Your task to perform on an android device: check google app version Image 0: 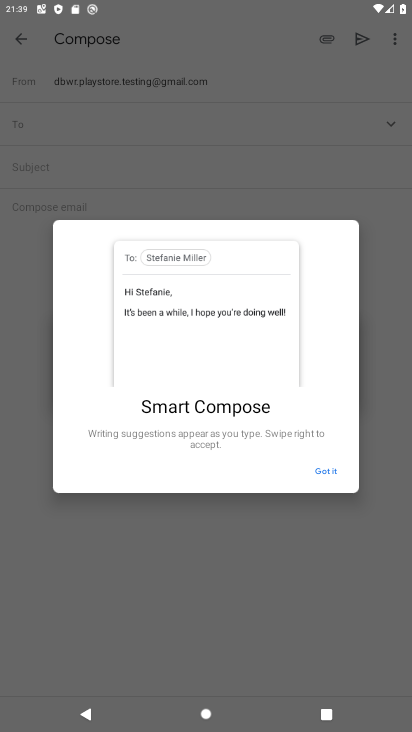
Step 0: press home button
Your task to perform on an android device: check google app version Image 1: 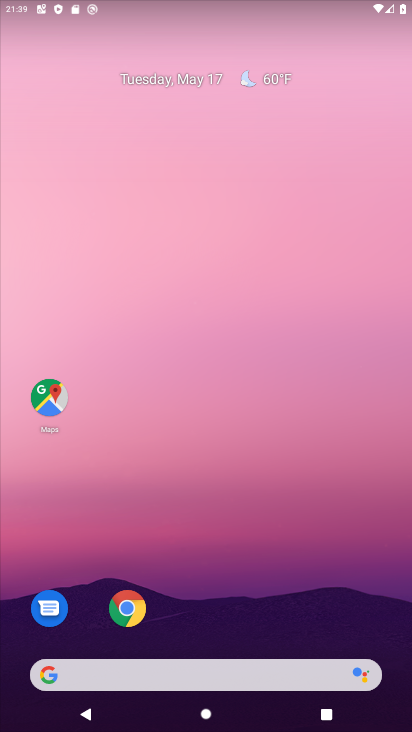
Step 1: drag from (247, 541) to (148, 135)
Your task to perform on an android device: check google app version Image 2: 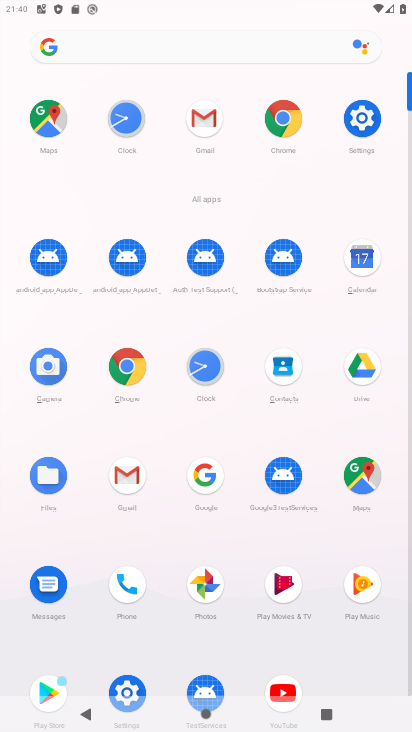
Step 2: click (201, 480)
Your task to perform on an android device: check google app version Image 3: 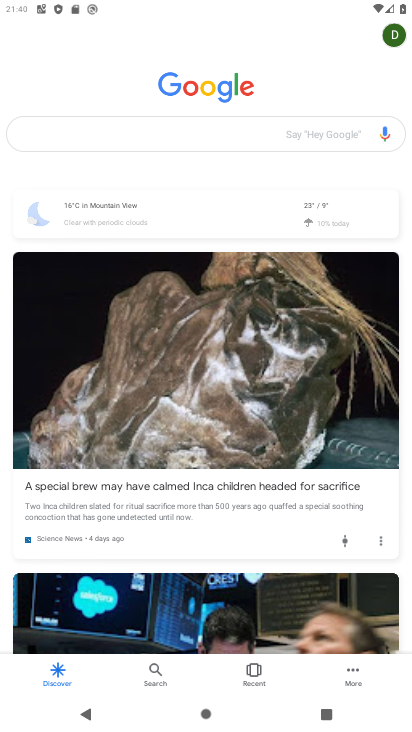
Step 3: click (353, 665)
Your task to perform on an android device: check google app version Image 4: 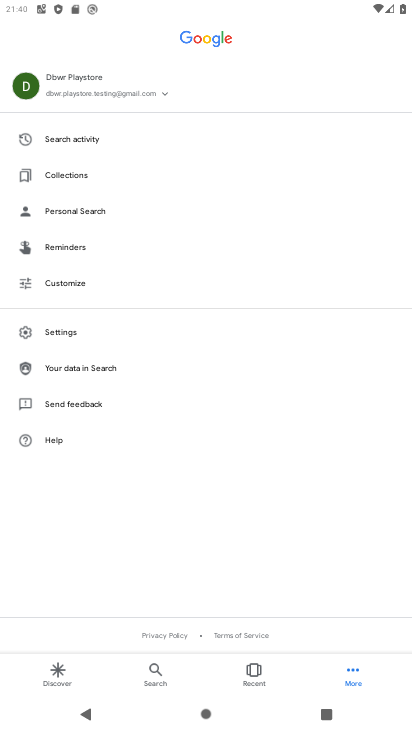
Step 4: click (59, 330)
Your task to perform on an android device: check google app version Image 5: 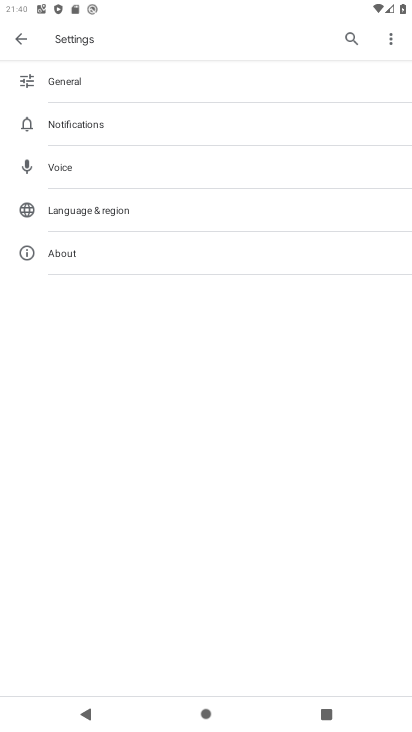
Step 5: click (69, 245)
Your task to perform on an android device: check google app version Image 6: 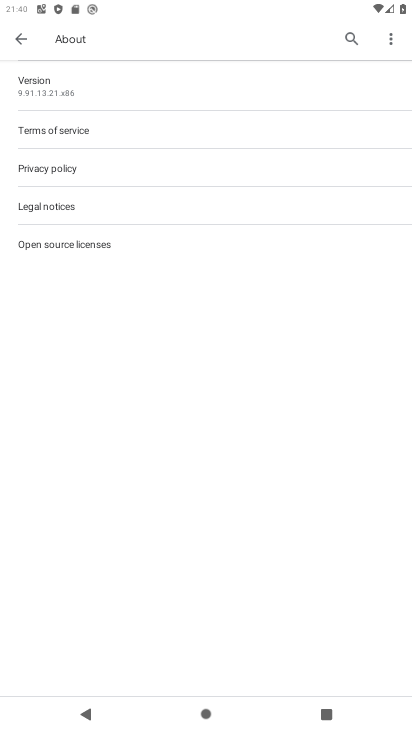
Step 6: task complete